Your task to perform on an android device: Go to Android settings Image 0: 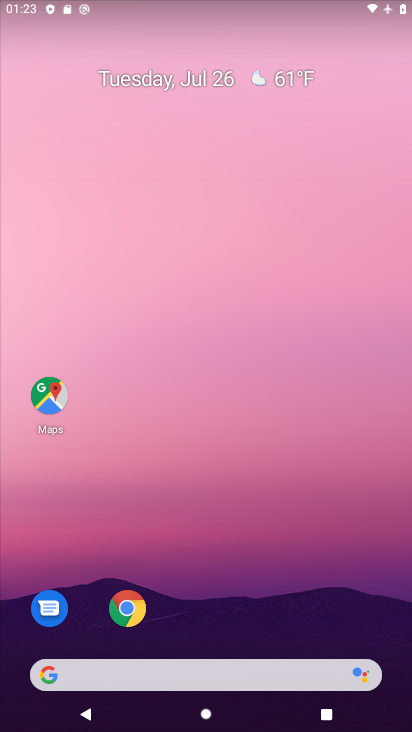
Step 0: drag from (253, 610) to (206, 193)
Your task to perform on an android device: Go to Android settings Image 1: 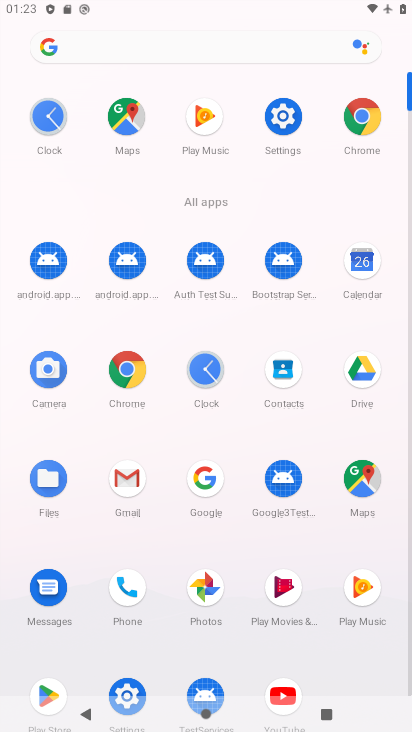
Step 1: drag from (161, 254) to (161, 143)
Your task to perform on an android device: Go to Android settings Image 2: 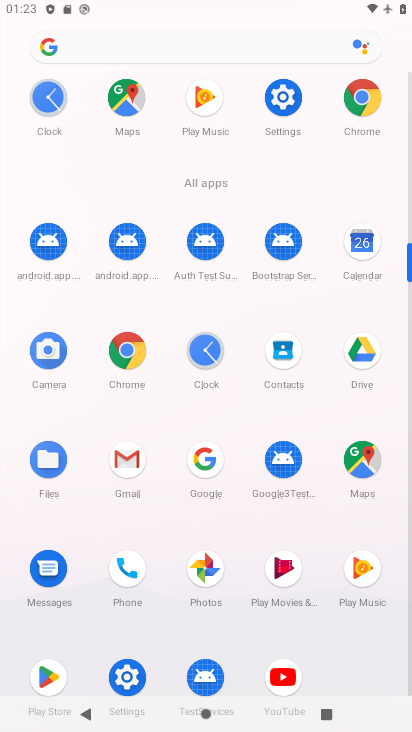
Step 2: click (130, 678)
Your task to perform on an android device: Go to Android settings Image 3: 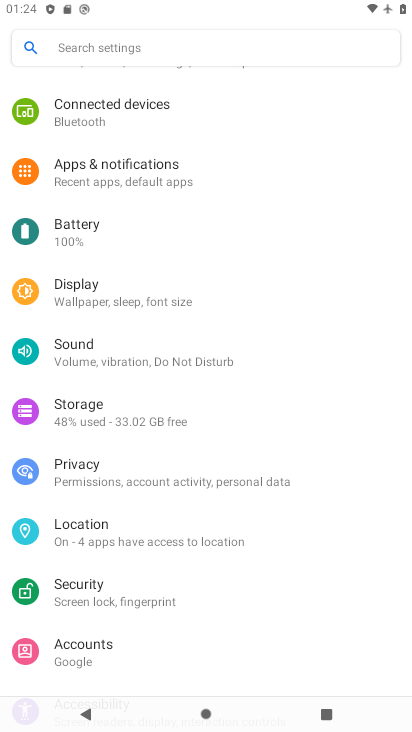
Step 3: task complete